Your task to perform on an android device: Go to battery settings Image 0: 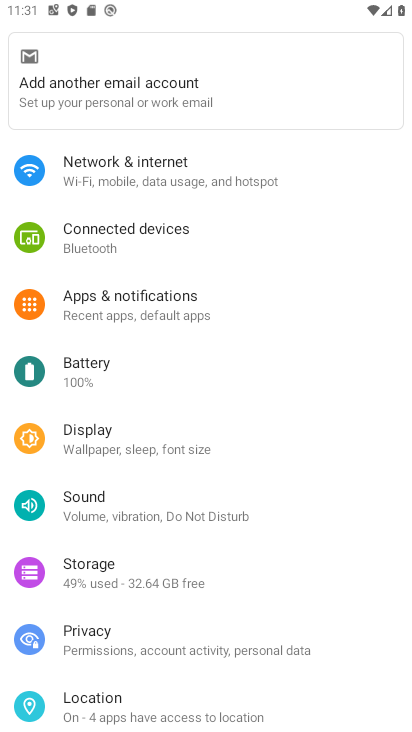
Step 0: click (123, 375)
Your task to perform on an android device: Go to battery settings Image 1: 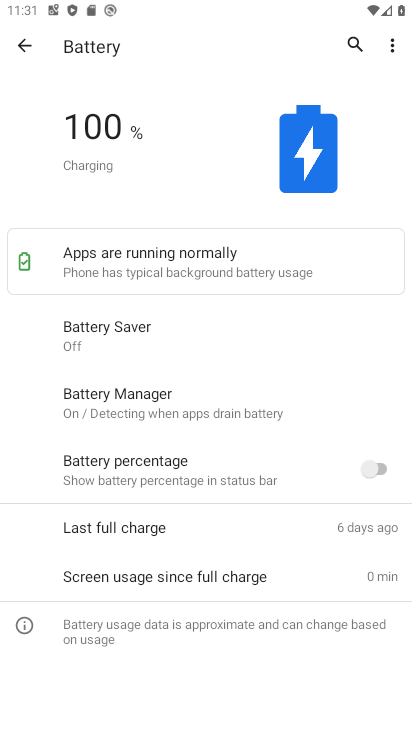
Step 1: task complete